Your task to perform on an android device: turn on bluetooth scan Image 0: 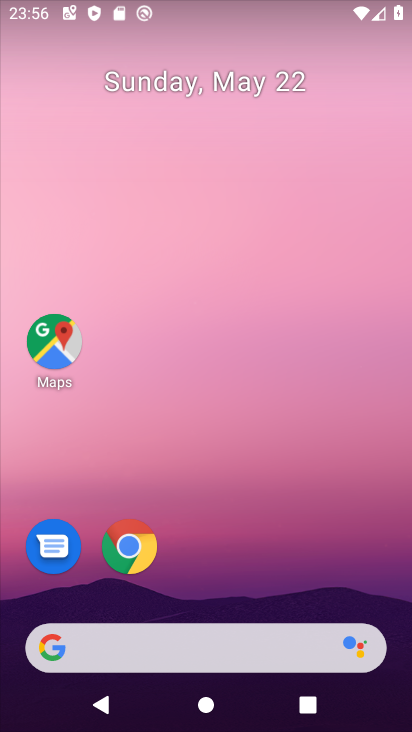
Step 0: drag from (391, 88) to (256, 138)
Your task to perform on an android device: turn on bluetooth scan Image 1: 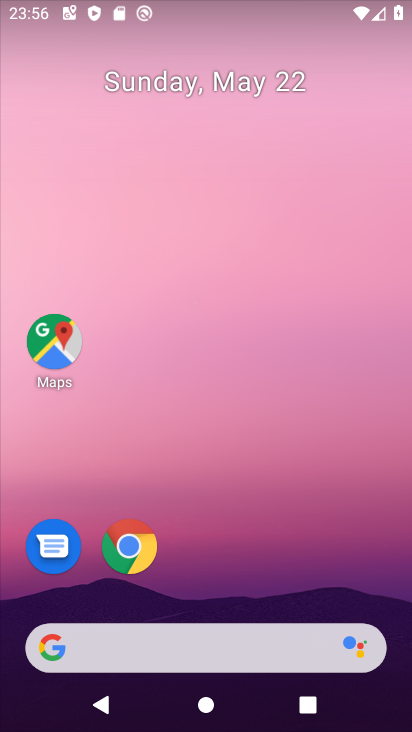
Step 1: drag from (208, 580) to (232, 94)
Your task to perform on an android device: turn on bluetooth scan Image 2: 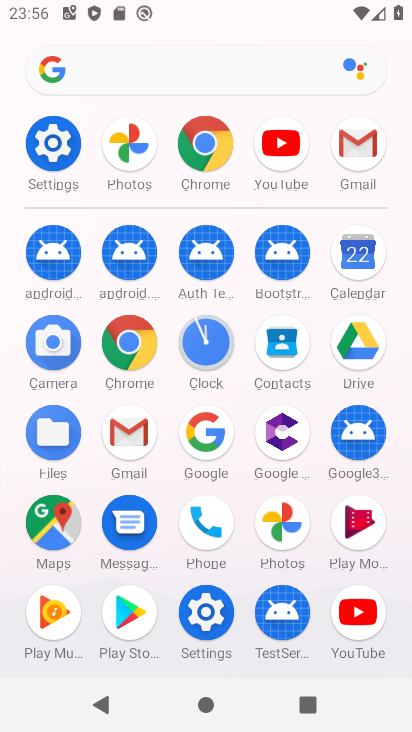
Step 2: drag from (262, 577) to (257, 213)
Your task to perform on an android device: turn on bluetooth scan Image 3: 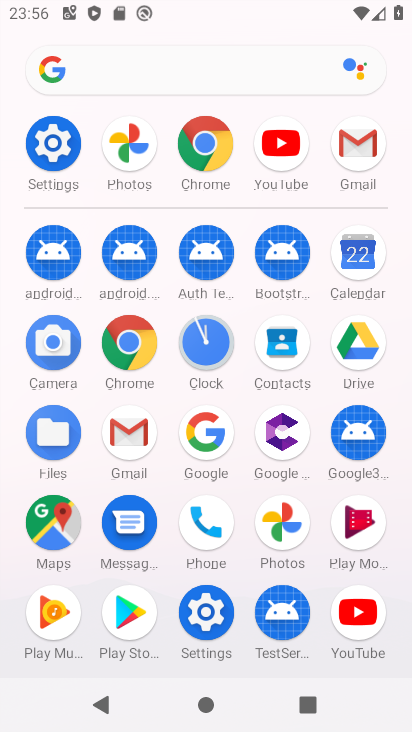
Step 3: click (207, 618)
Your task to perform on an android device: turn on bluetooth scan Image 4: 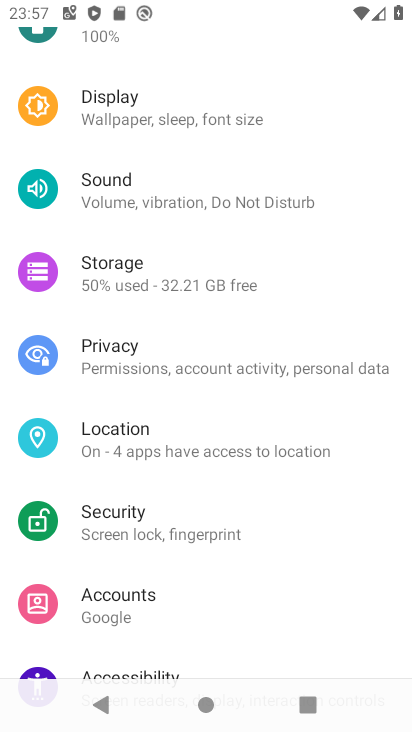
Step 4: drag from (253, 631) to (256, 369)
Your task to perform on an android device: turn on bluetooth scan Image 5: 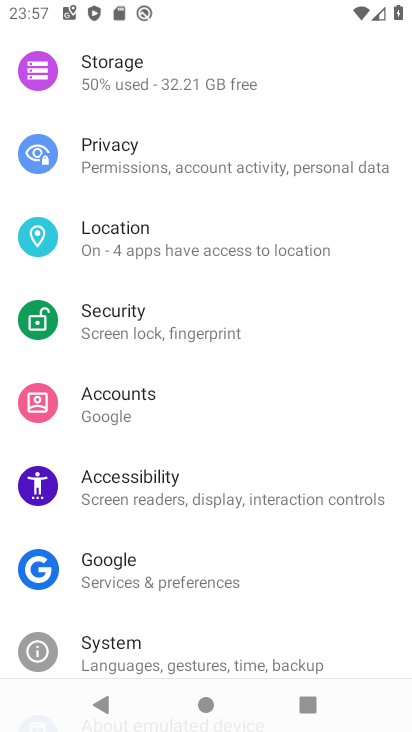
Step 5: click (154, 245)
Your task to perform on an android device: turn on bluetooth scan Image 6: 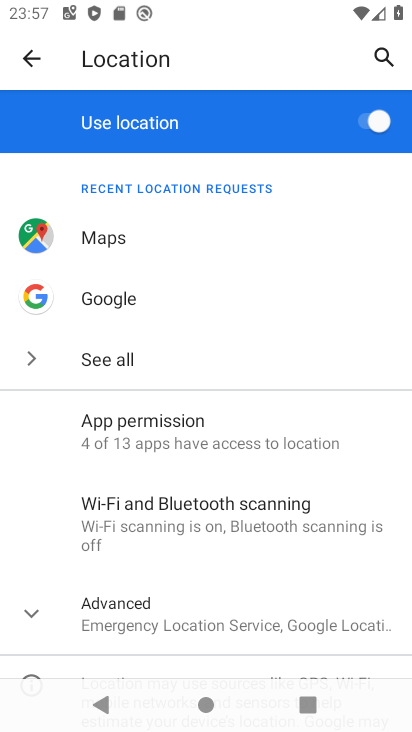
Step 6: drag from (216, 530) to (227, 291)
Your task to perform on an android device: turn on bluetooth scan Image 7: 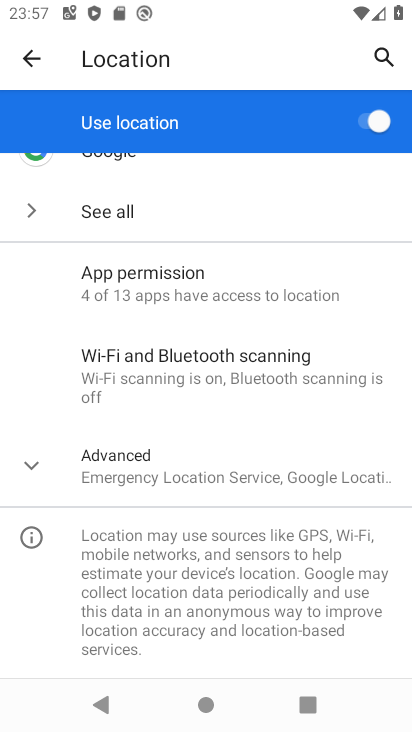
Step 7: click (180, 380)
Your task to perform on an android device: turn on bluetooth scan Image 8: 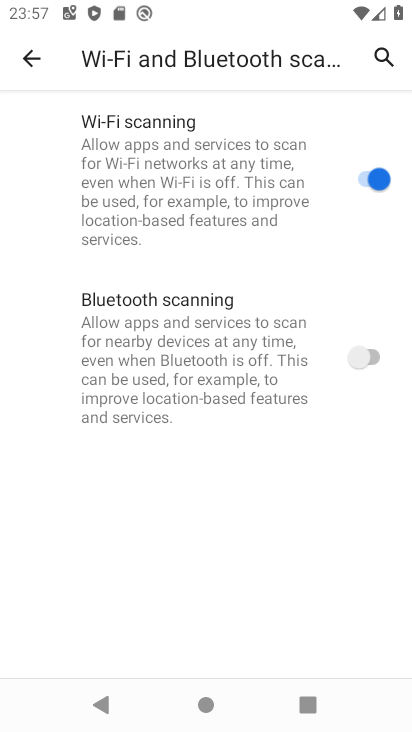
Step 8: click (345, 356)
Your task to perform on an android device: turn on bluetooth scan Image 9: 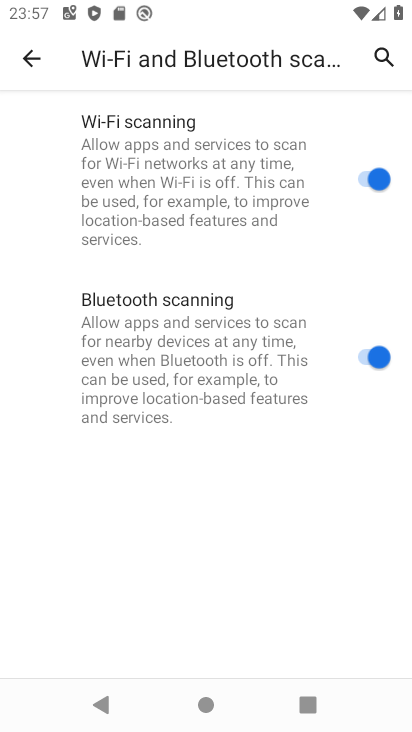
Step 9: task complete